Your task to perform on an android device: open a bookmark in the chrome app Image 0: 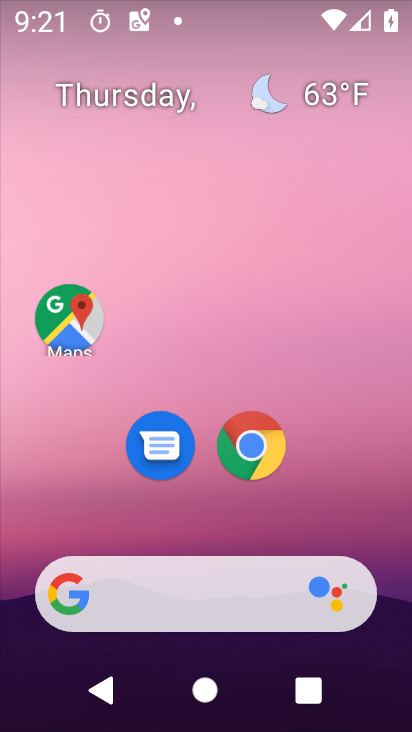
Step 0: drag from (169, 531) to (201, 174)
Your task to perform on an android device: open a bookmark in the chrome app Image 1: 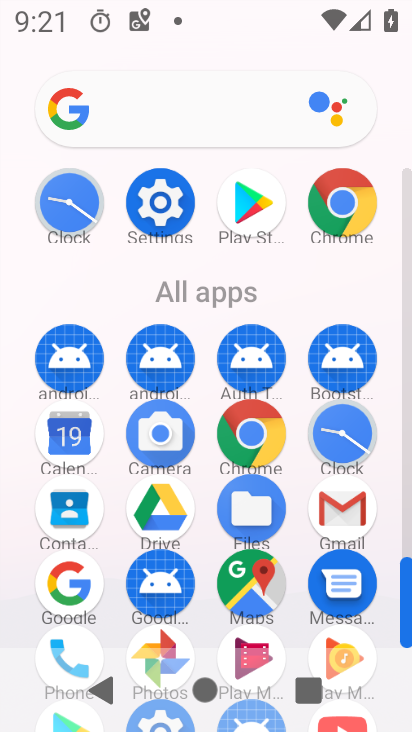
Step 1: click (256, 437)
Your task to perform on an android device: open a bookmark in the chrome app Image 2: 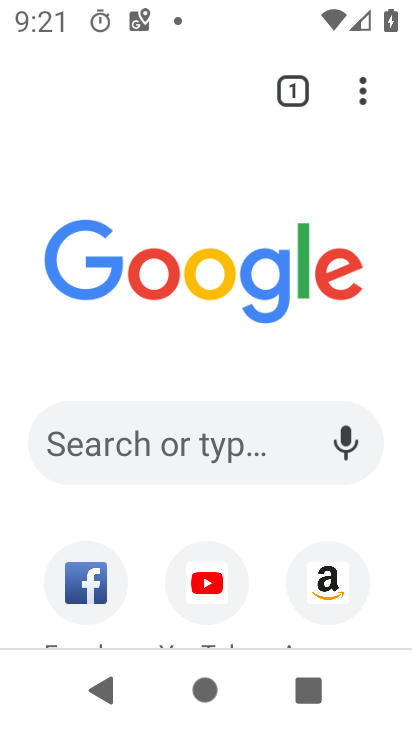
Step 2: click (372, 93)
Your task to perform on an android device: open a bookmark in the chrome app Image 3: 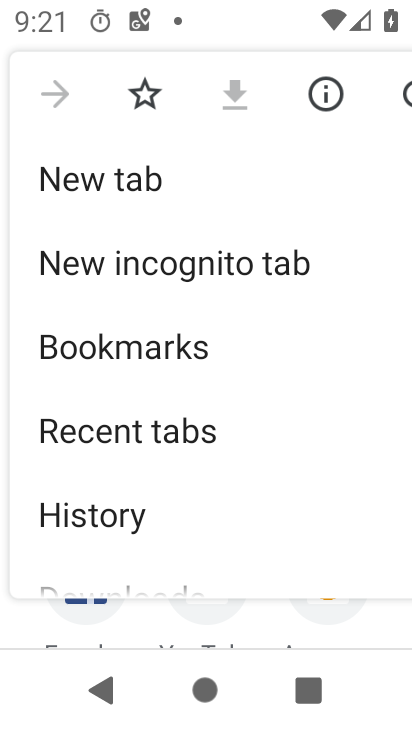
Step 3: click (219, 355)
Your task to perform on an android device: open a bookmark in the chrome app Image 4: 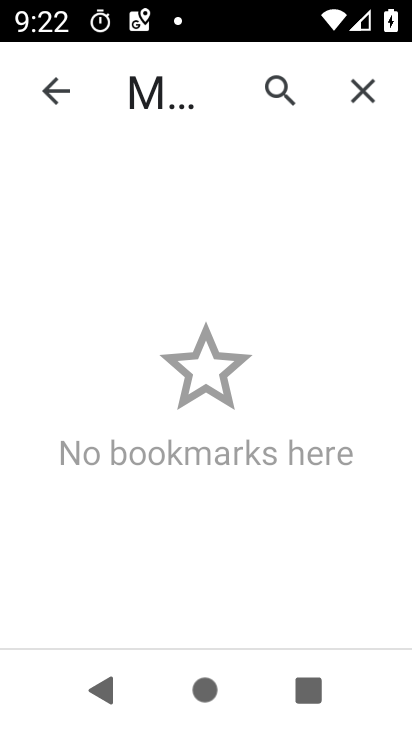
Step 4: task complete